Your task to perform on an android device: Open the map Image 0: 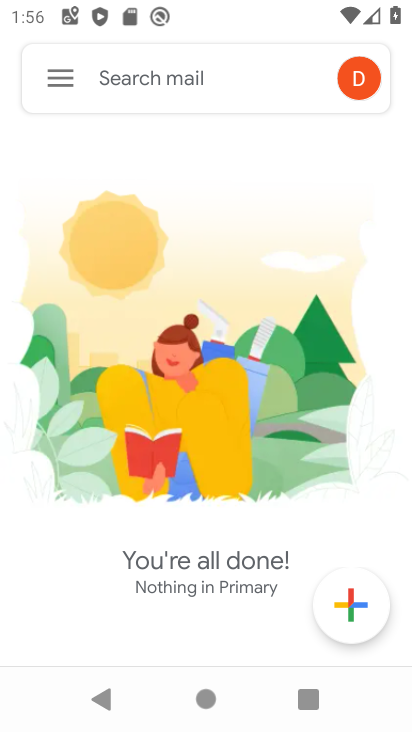
Step 0: press home button
Your task to perform on an android device: Open the map Image 1: 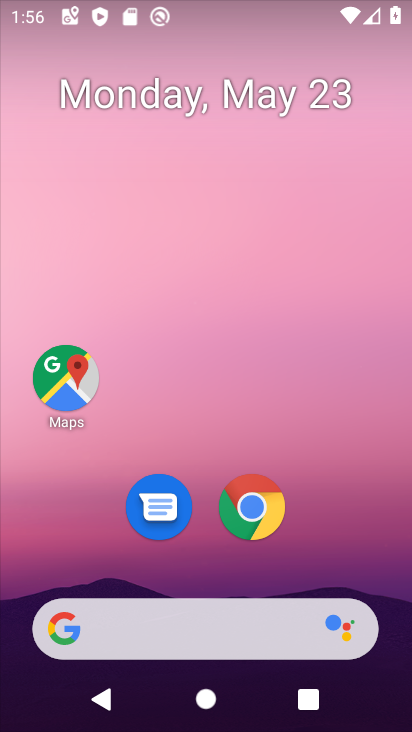
Step 1: drag from (228, 726) to (233, 245)
Your task to perform on an android device: Open the map Image 2: 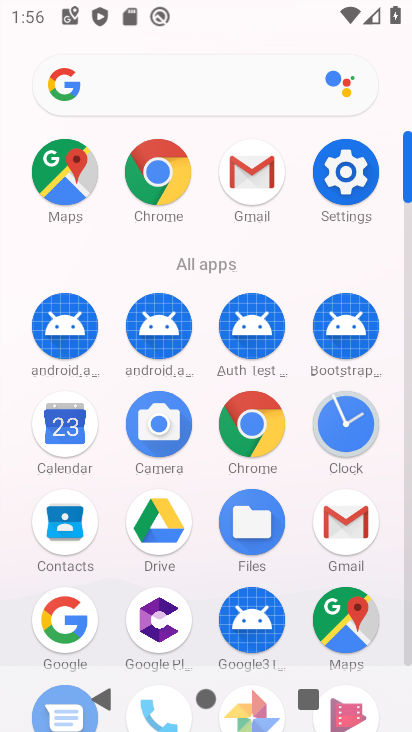
Step 2: click (351, 633)
Your task to perform on an android device: Open the map Image 3: 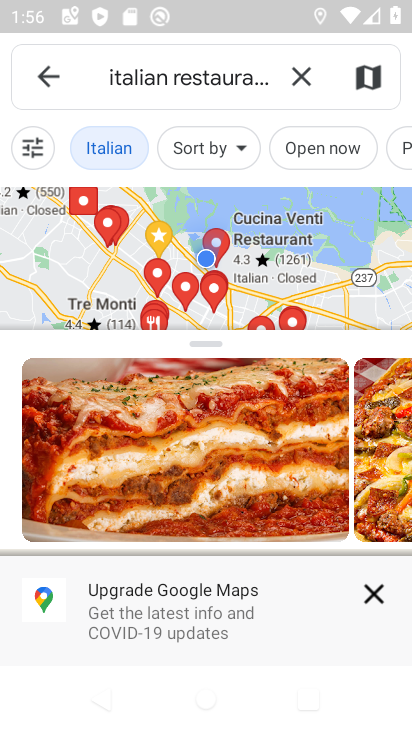
Step 3: task complete